Your task to perform on an android device: open chrome and create a bookmark for the current page Image 0: 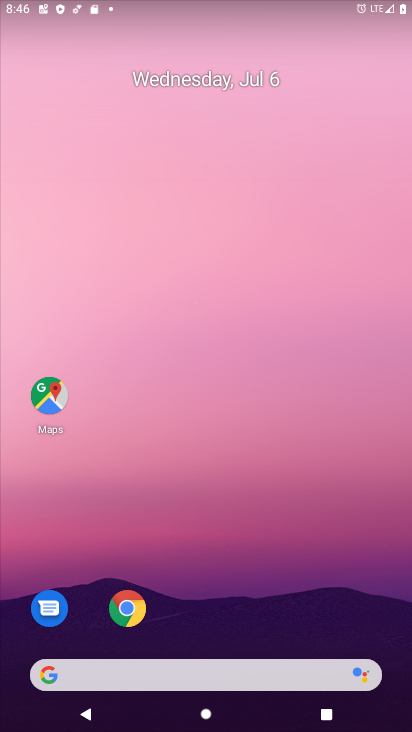
Step 0: drag from (390, 655) to (264, 29)
Your task to perform on an android device: open chrome and create a bookmark for the current page Image 1: 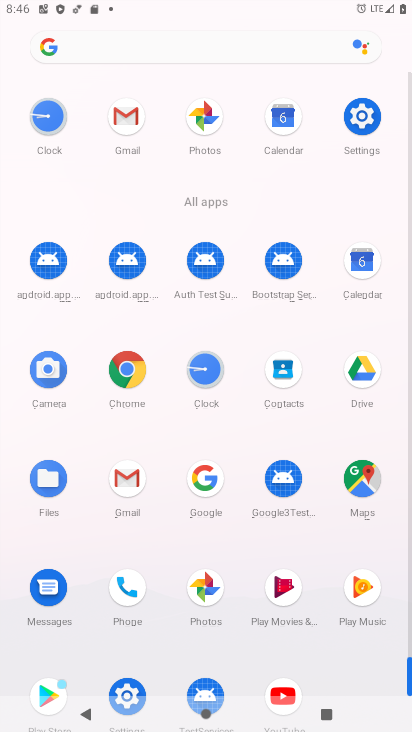
Step 1: click (132, 382)
Your task to perform on an android device: open chrome and create a bookmark for the current page Image 2: 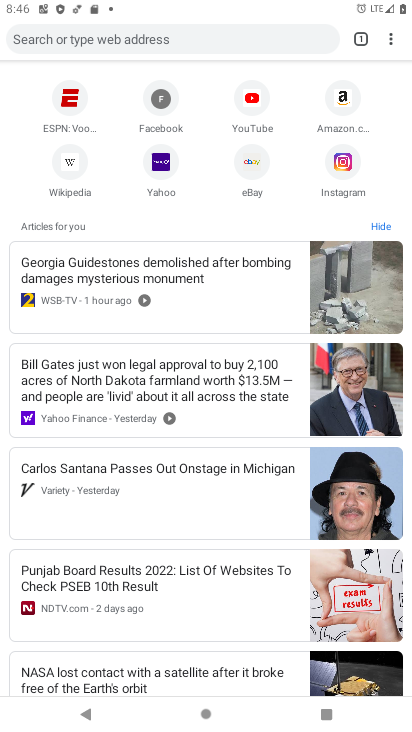
Step 2: click (398, 36)
Your task to perform on an android device: open chrome and create a bookmark for the current page Image 3: 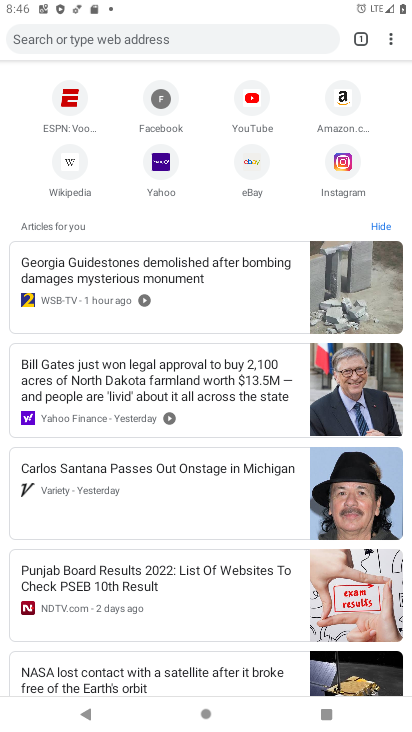
Step 3: click (394, 33)
Your task to perform on an android device: open chrome and create a bookmark for the current page Image 4: 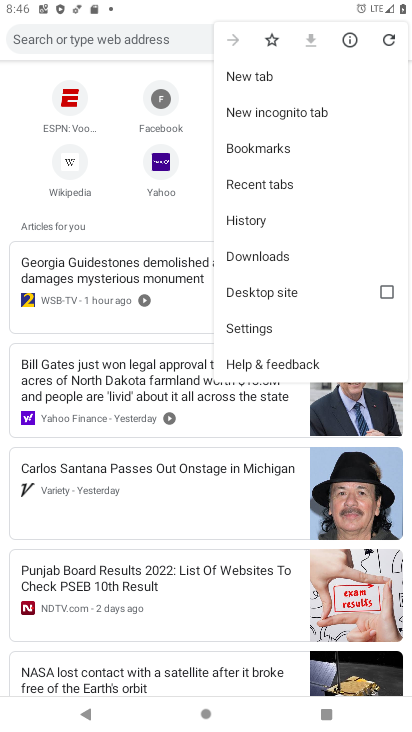
Step 4: click (274, 41)
Your task to perform on an android device: open chrome and create a bookmark for the current page Image 5: 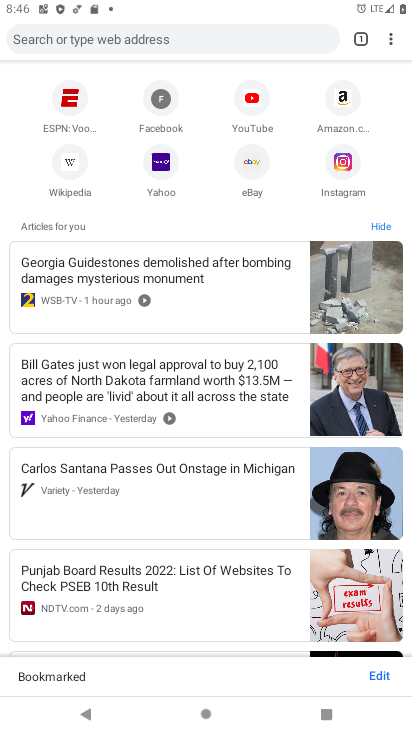
Step 5: task complete